Your task to perform on an android device: Play the last video I watched on Youtube Image 0: 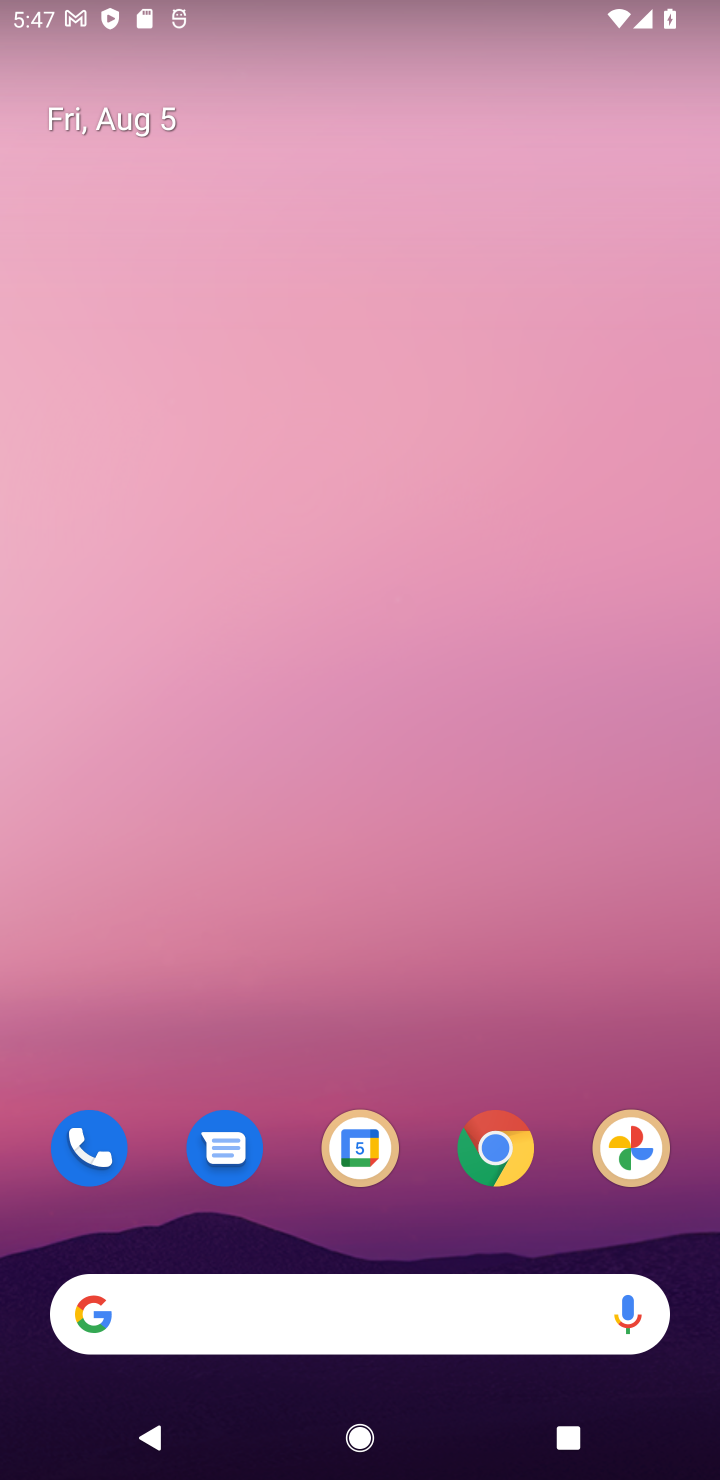
Step 0: drag from (436, 1031) to (480, 12)
Your task to perform on an android device: Play the last video I watched on Youtube Image 1: 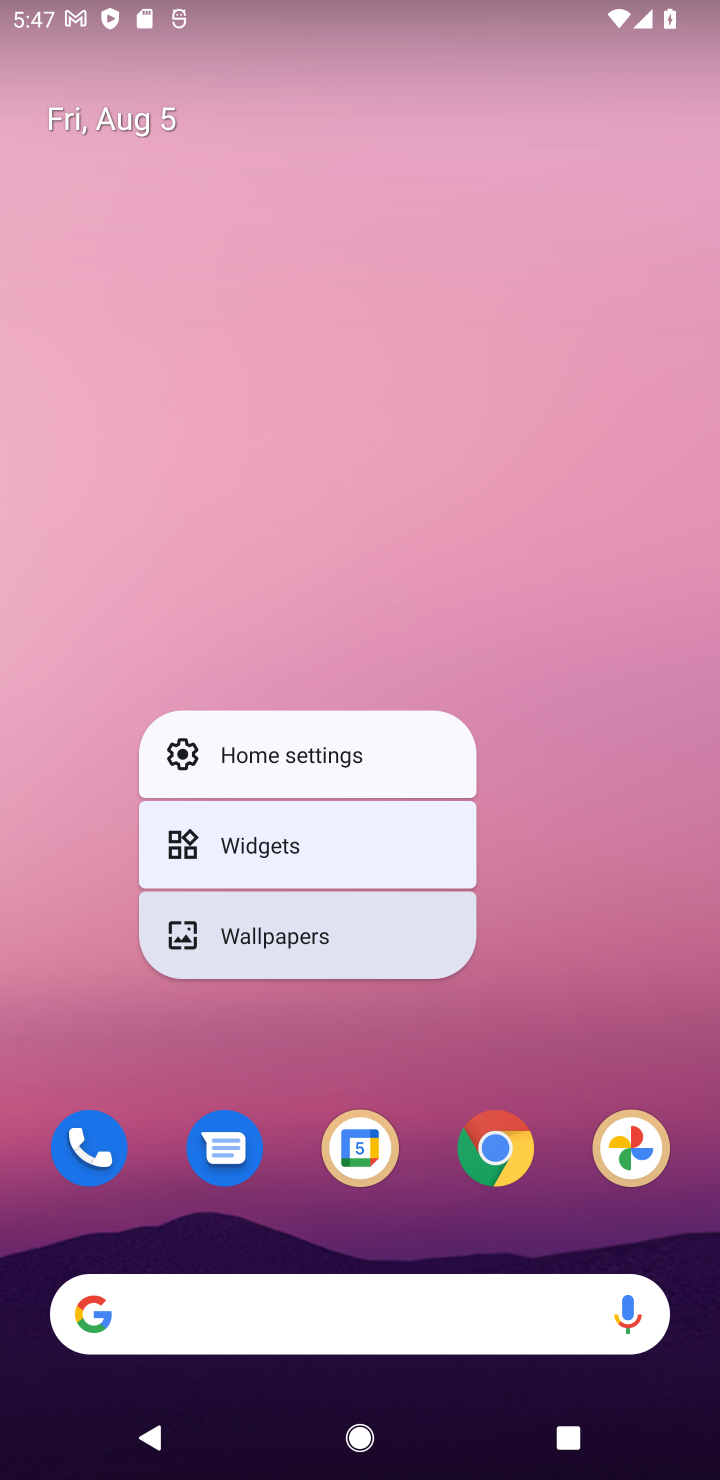
Step 1: click (542, 688)
Your task to perform on an android device: Play the last video I watched on Youtube Image 2: 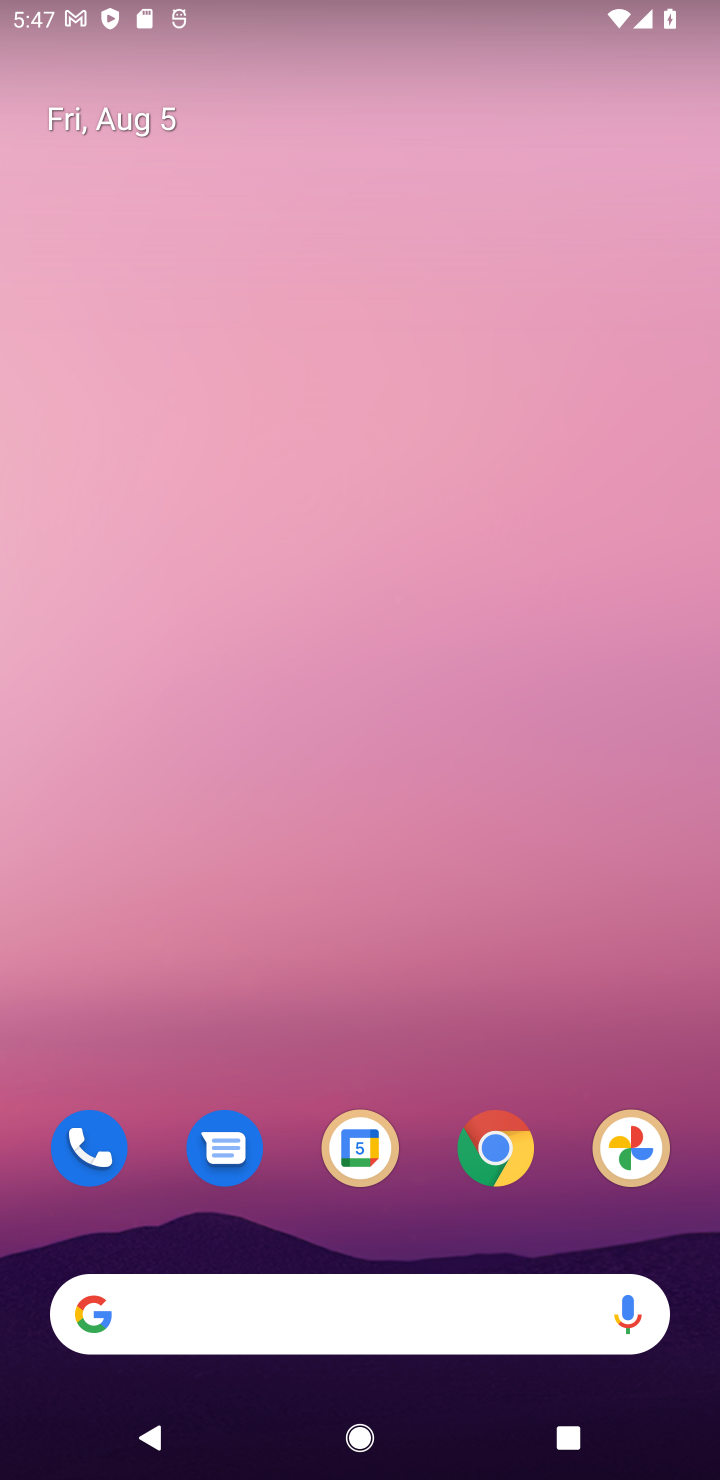
Step 2: drag from (435, 1009) to (365, 159)
Your task to perform on an android device: Play the last video I watched on Youtube Image 3: 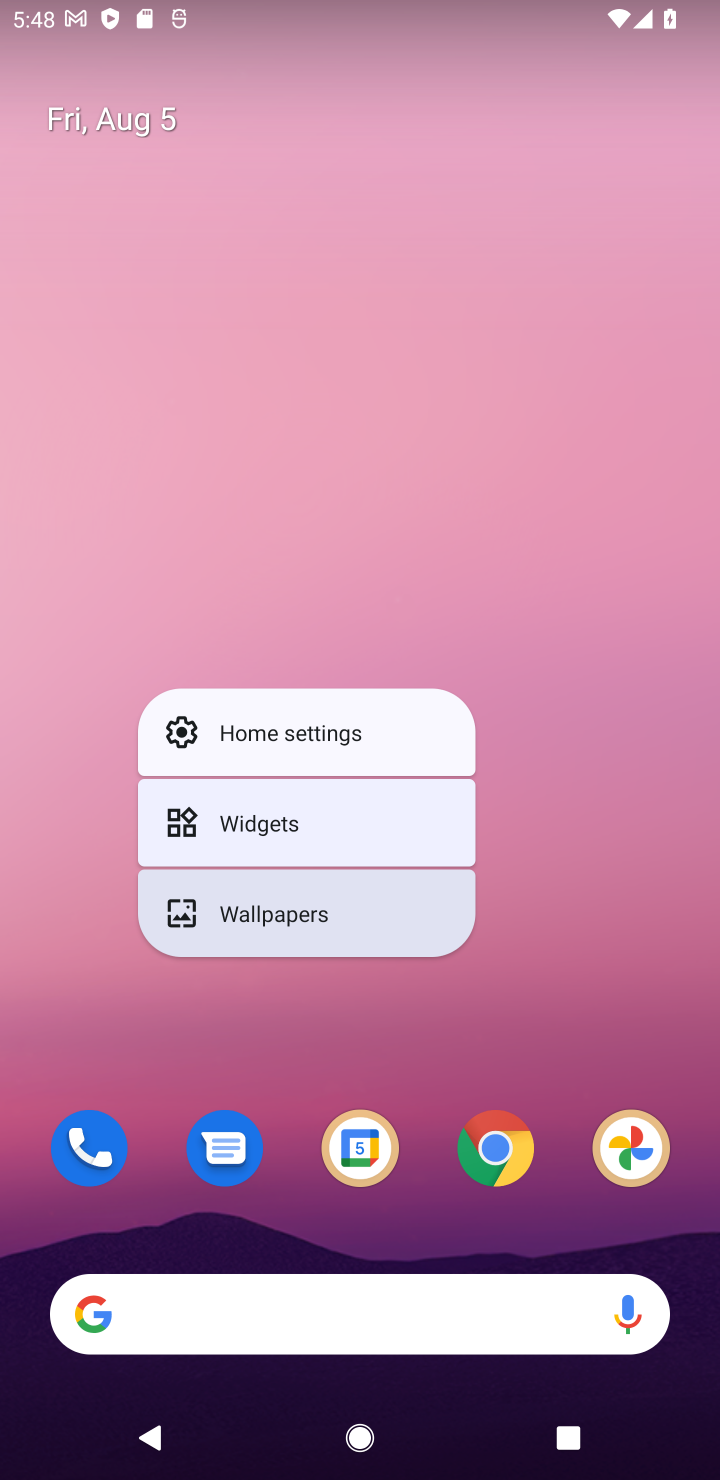
Step 3: click (543, 585)
Your task to perform on an android device: Play the last video I watched on Youtube Image 4: 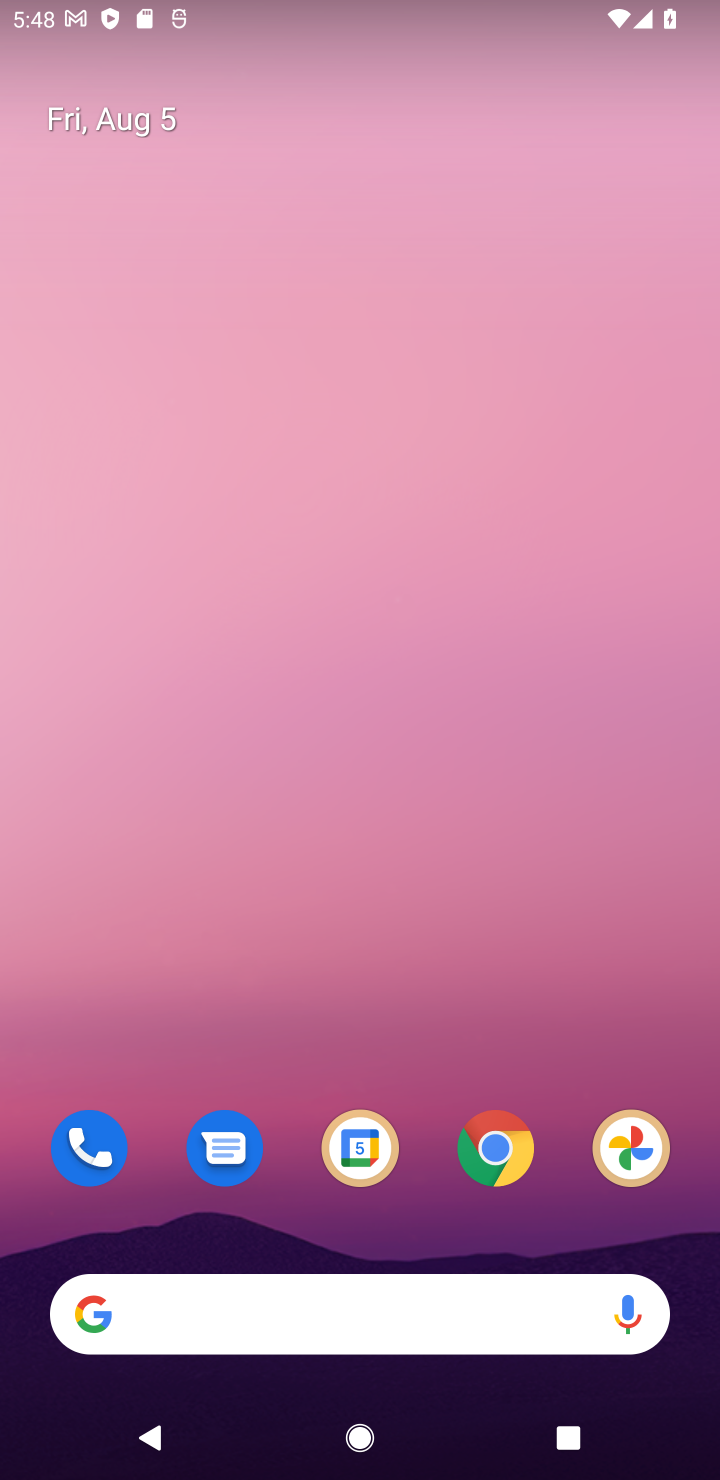
Step 4: drag from (498, 1028) to (278, 32)
Your task to perform on an android device: Play the last video I watched on Youtube Image 5: 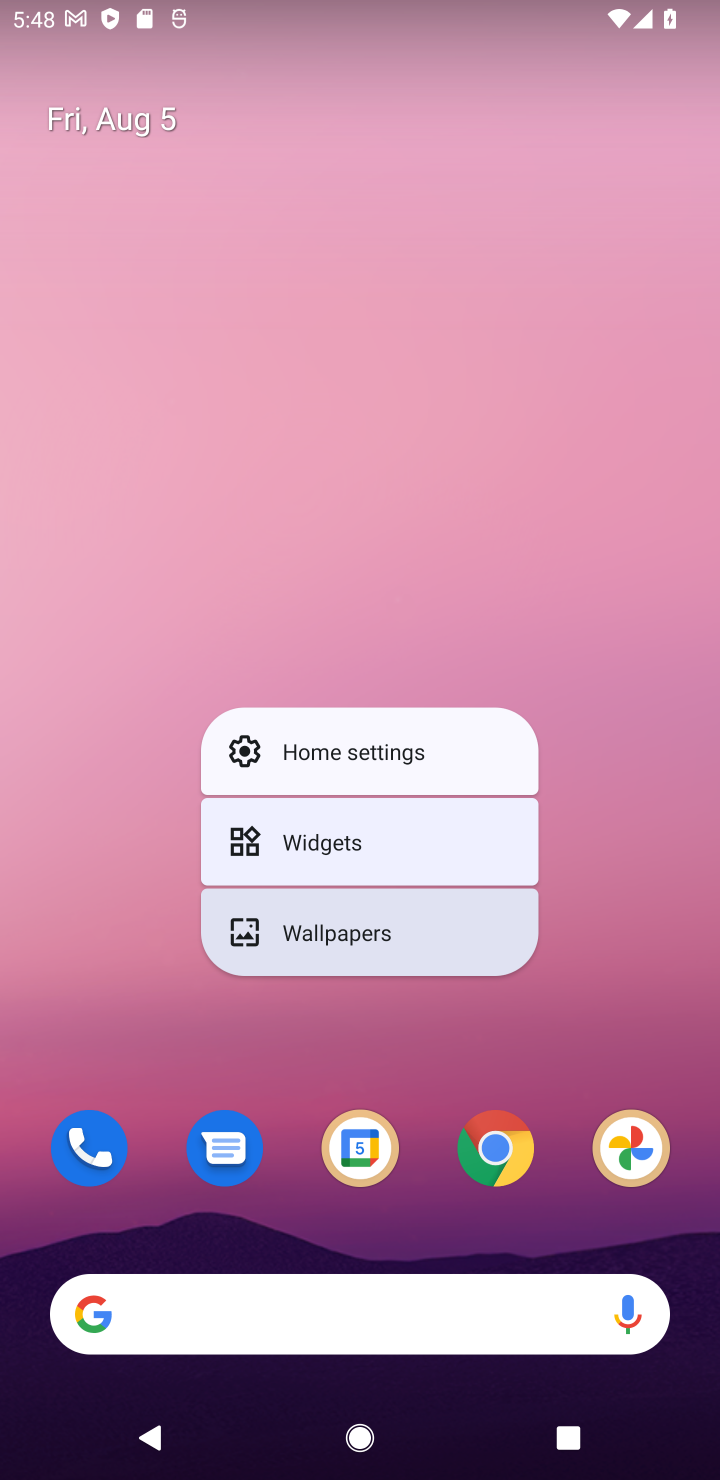
Step 5: click (327, 514)
Your task to perform on an android device: Play the last video I watched on Youtube Image 6: 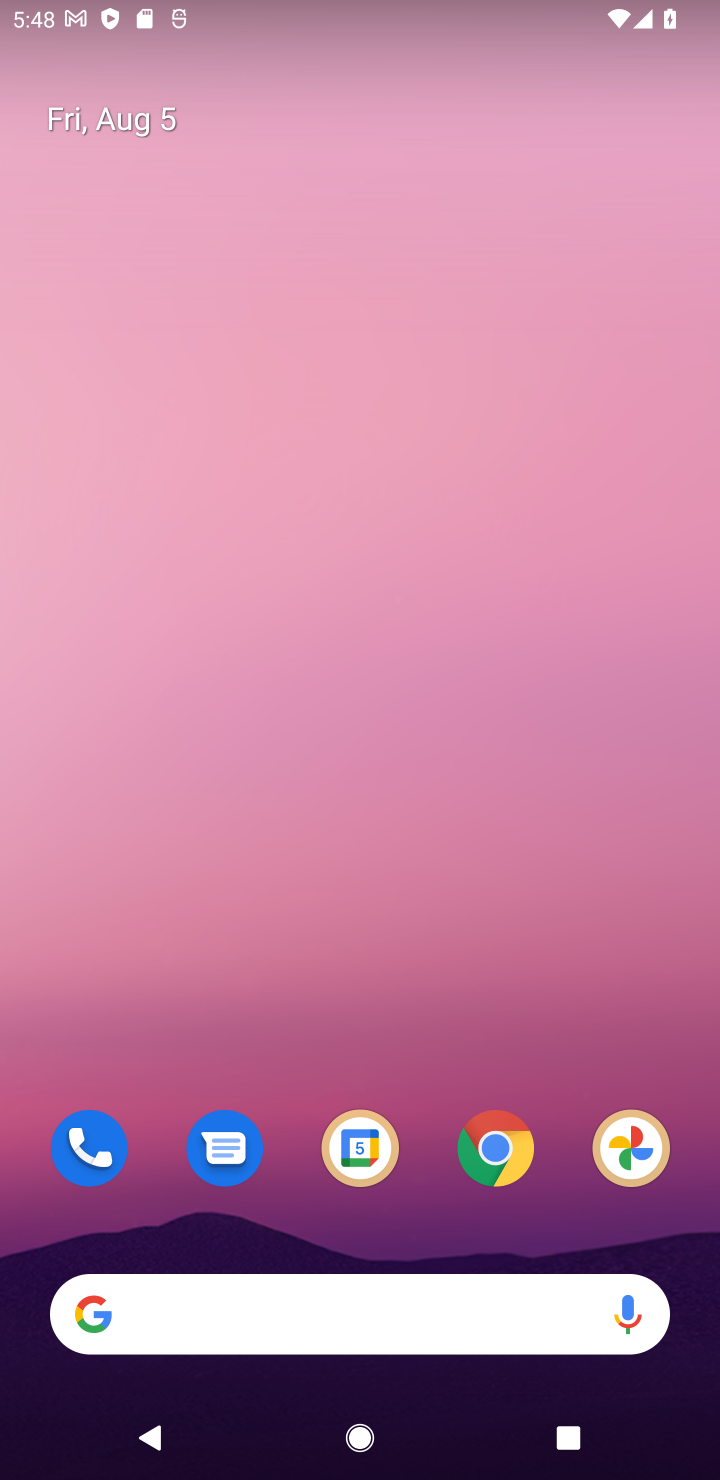
Step 6: drag from (414, 1076) to (339, 0)
Your task to perform on an android device: Play the last video I watched on Youtube Image 7: 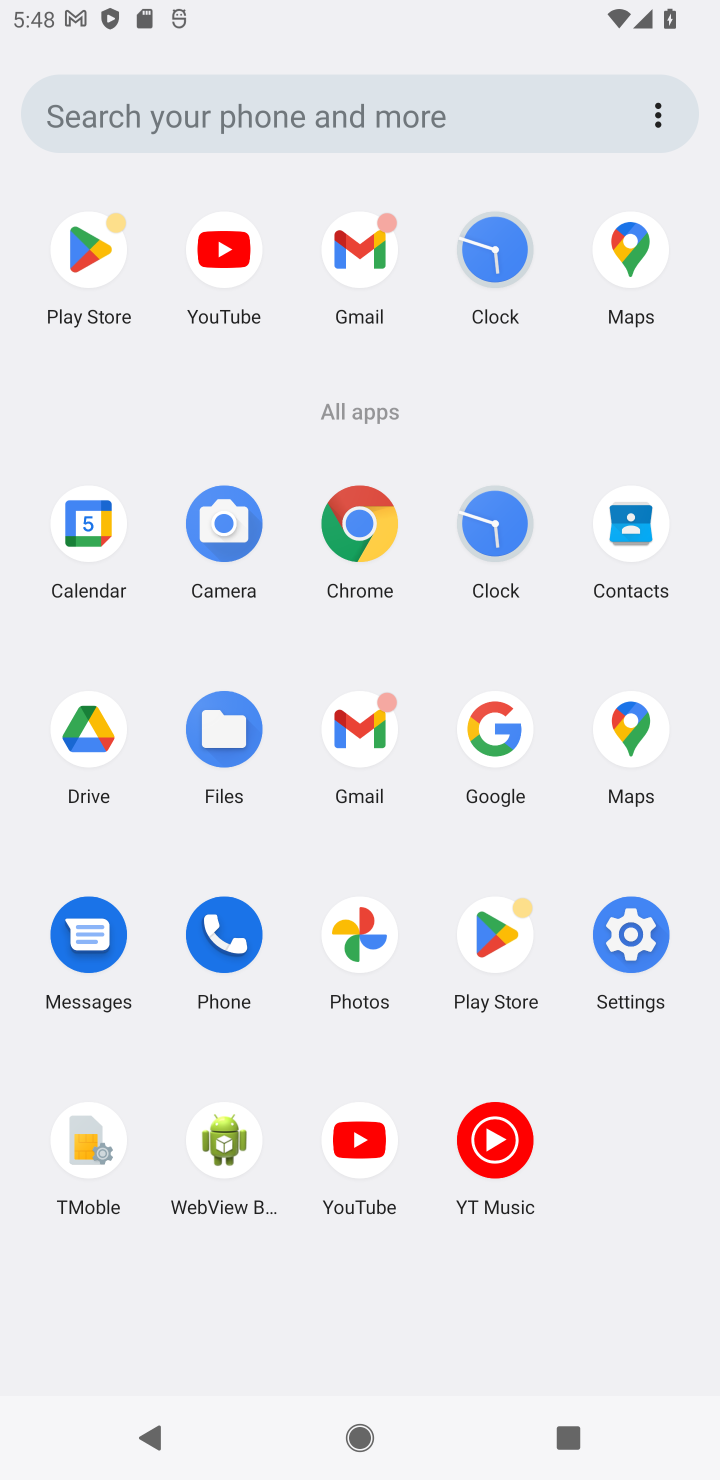
Step 7: click (356, 1135)
Your task to perform on an android device: Play the last video I watched on Youtube Image 8: 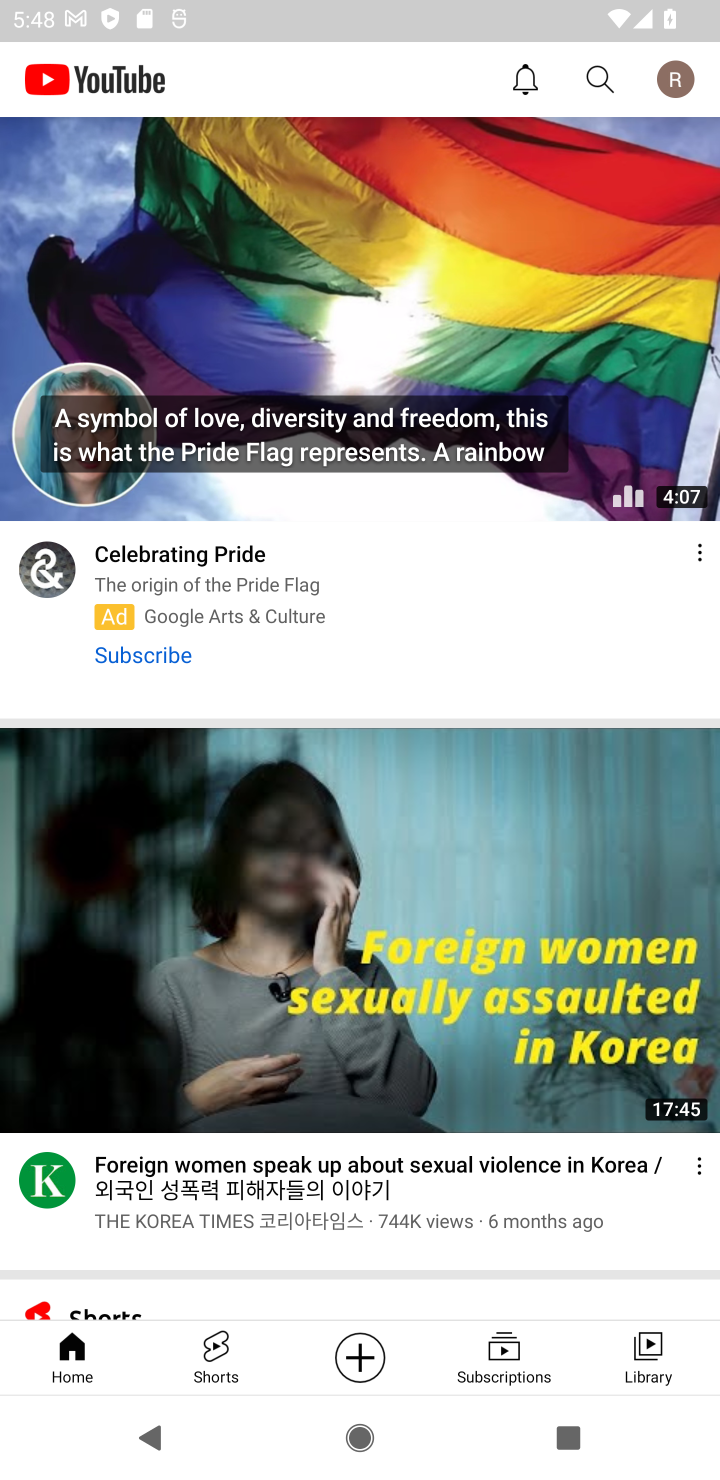
Step 8: click (648, 1360)
Your task to perform on an android device: Play the last video I watched on Youtube Image 9: 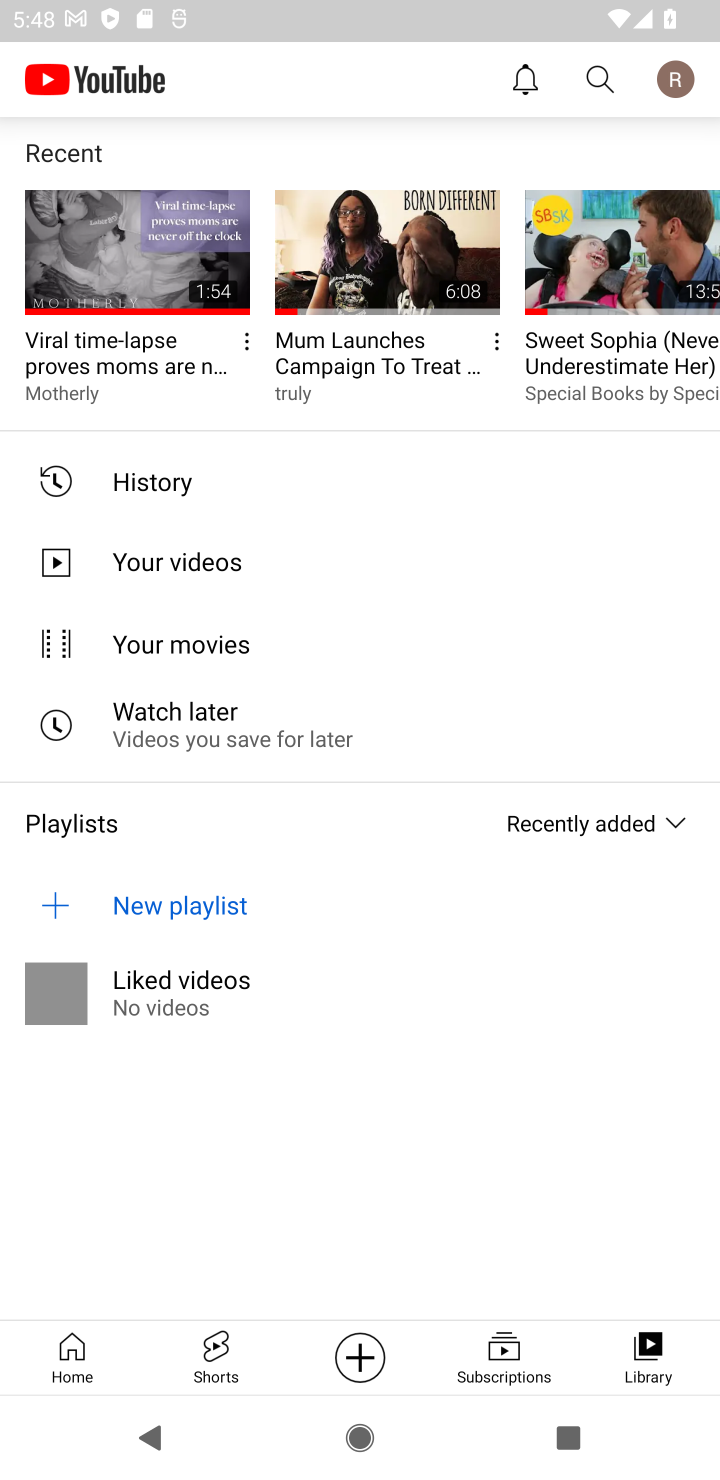
Step 9: click (158, 277)
Your task to perform on an android device: Play the last video I watched on Youtube Image 10: 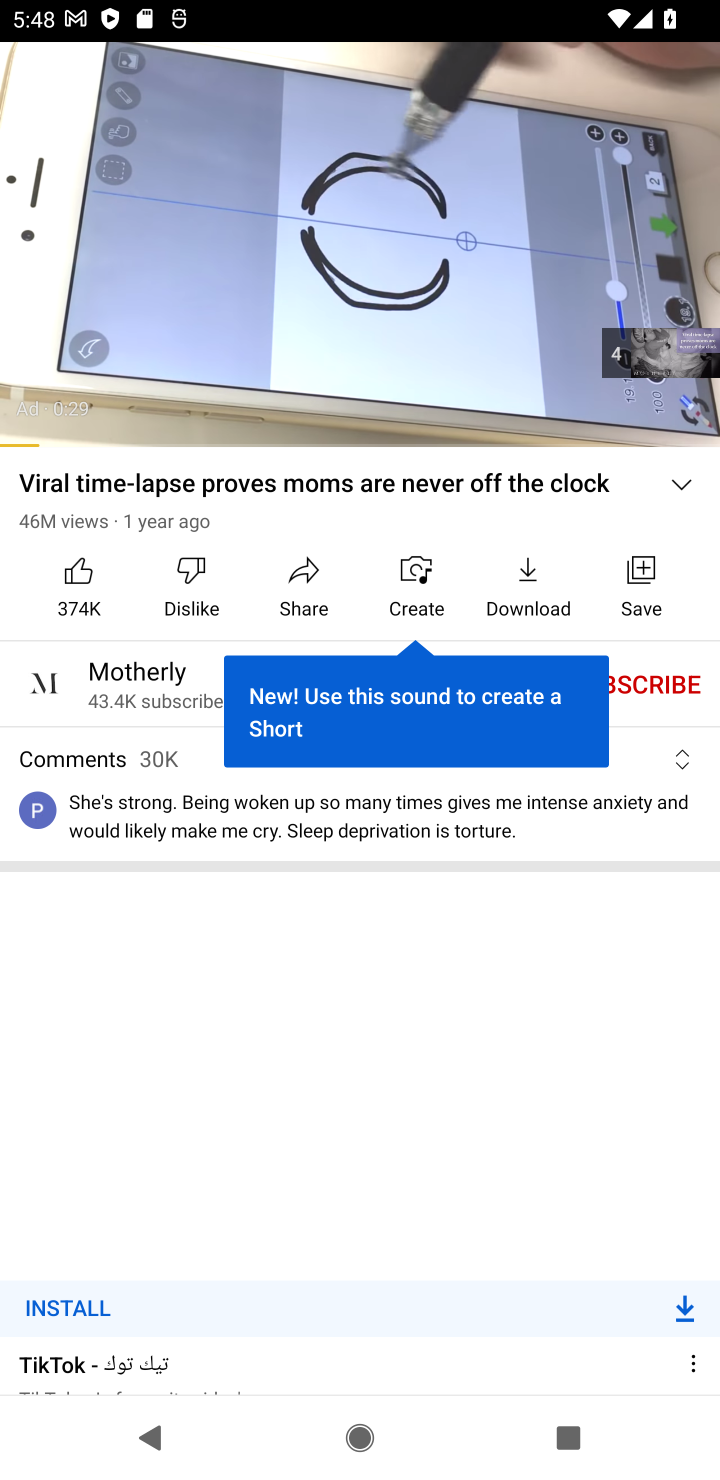
Step 10: task complete